Your task to perform on an android device: Do I have any events today? Image 0: 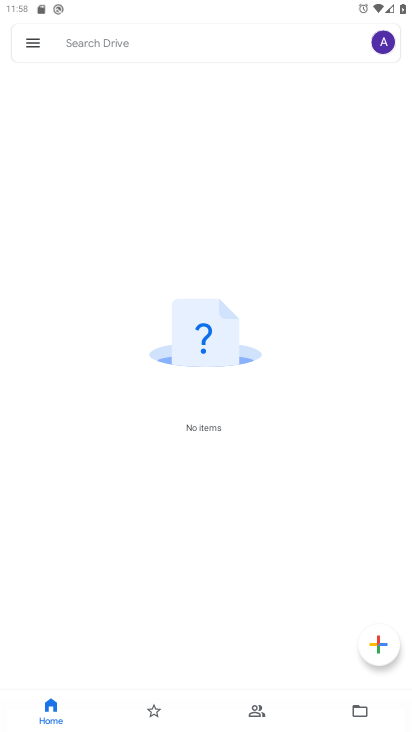
Step 0: press home button
Your task to perform on an android device: Do I have any events today? Image 1: 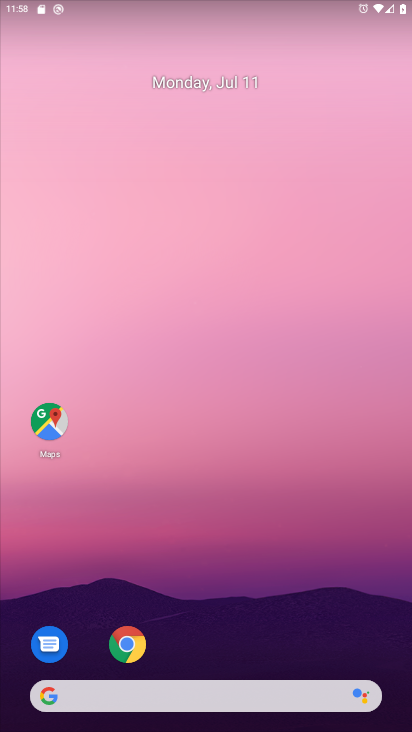
Step 1: drag from (283, 571) to (267, 19)
Your task to perform on an android device: Do I have any events today? Image 2: 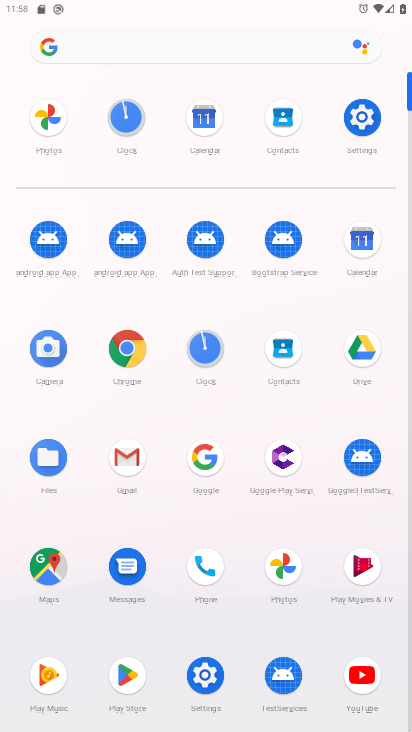
Step 2: click (369, 252)
Your task to perform on an android device: Do I have any events today? Image 3: 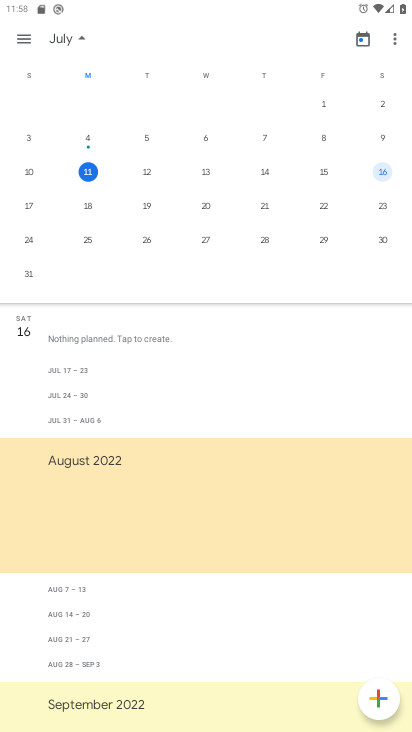
Step 3: click (87, 166)
Your task to perform on an android device: Do I have any events today? Image 4: 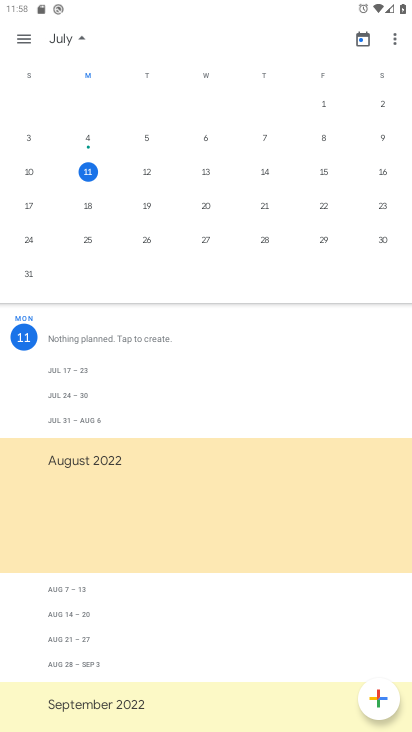
Step 4: task complete